Your task to perform on an android device: Go to network settings Image 0: 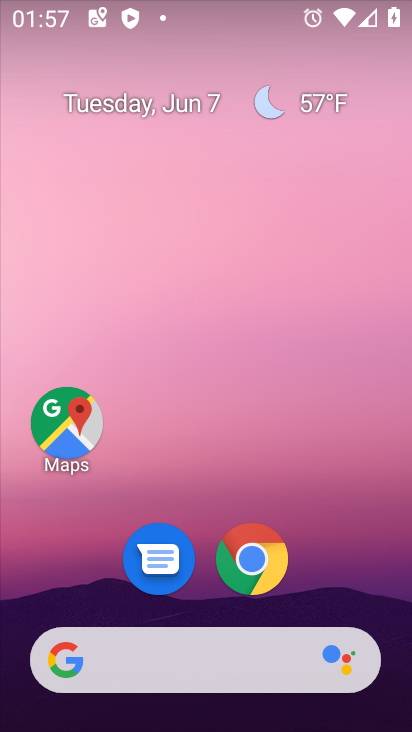
Step 0: drag from (358, 562) to (222, 100)
Your task to perform on an android device: Go to network settings Image 1: 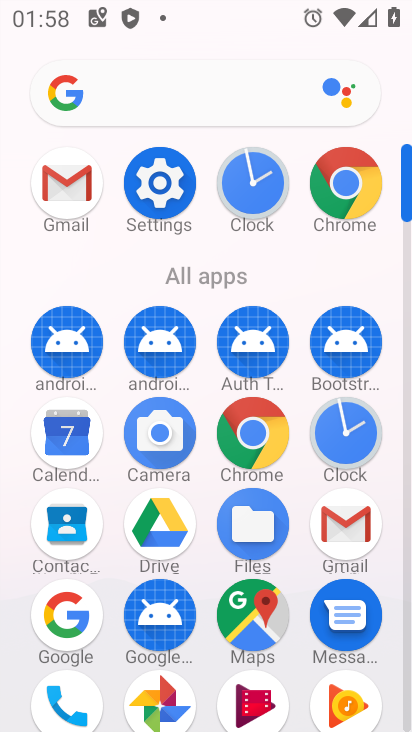
Step 1: click (160, 183)
Your task to perform on an android device: Go to network settings Image 2: 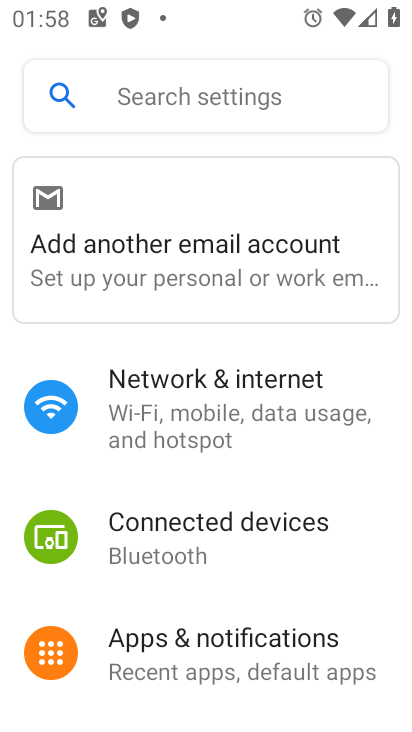
Step 2: click (198, 423)
Your task to perform on an android device: Go to network settings Image 3: 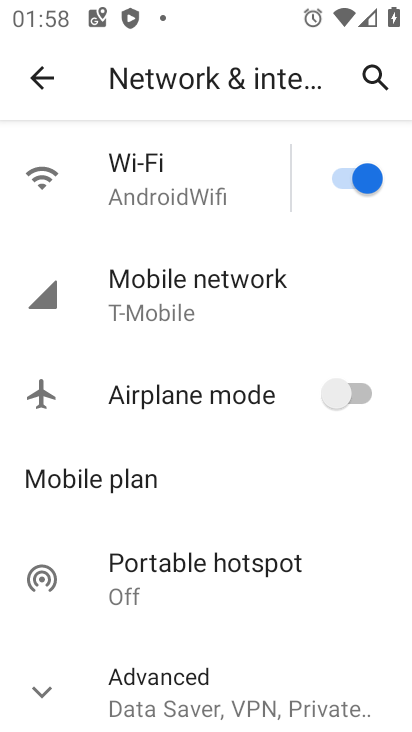
Step 3: click (146, 191)
Your task to perform on an android device: Go to network settings Image 4: 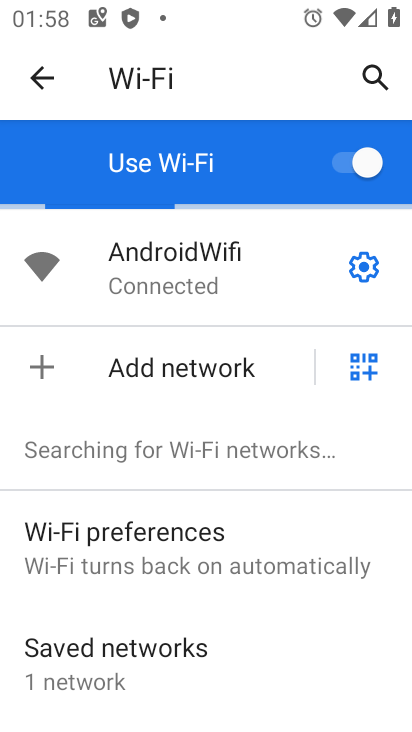
Step 4: task complete